Your task to perform on an android device: Do I have any events today? Image 0: 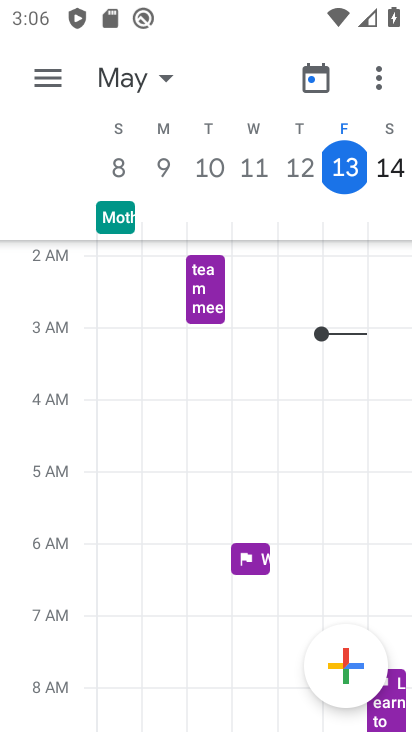
Step 0: click (40, 72)
Your task to perform on an android device: Do I have any events today? Image 1: 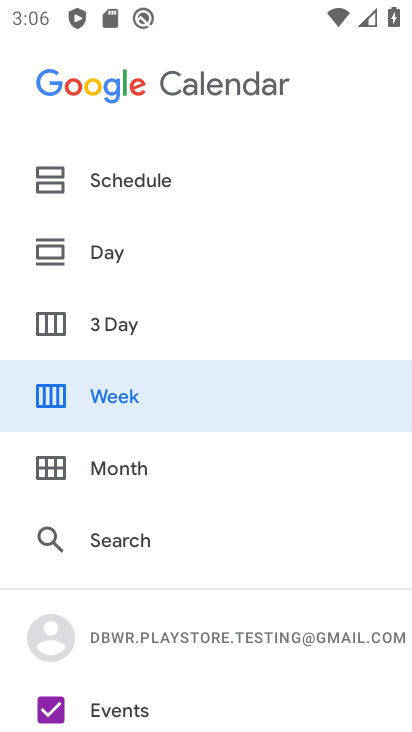
Step 1: click (104, 254)
Your task to perform on an android device: Do I have any events today? Image 2: 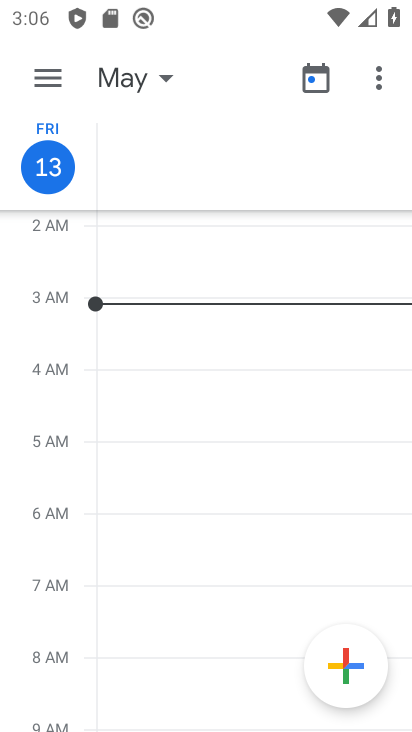
Step 2: task complete